Your task to perform on an android device: What time is it in Sydney? Image 0: 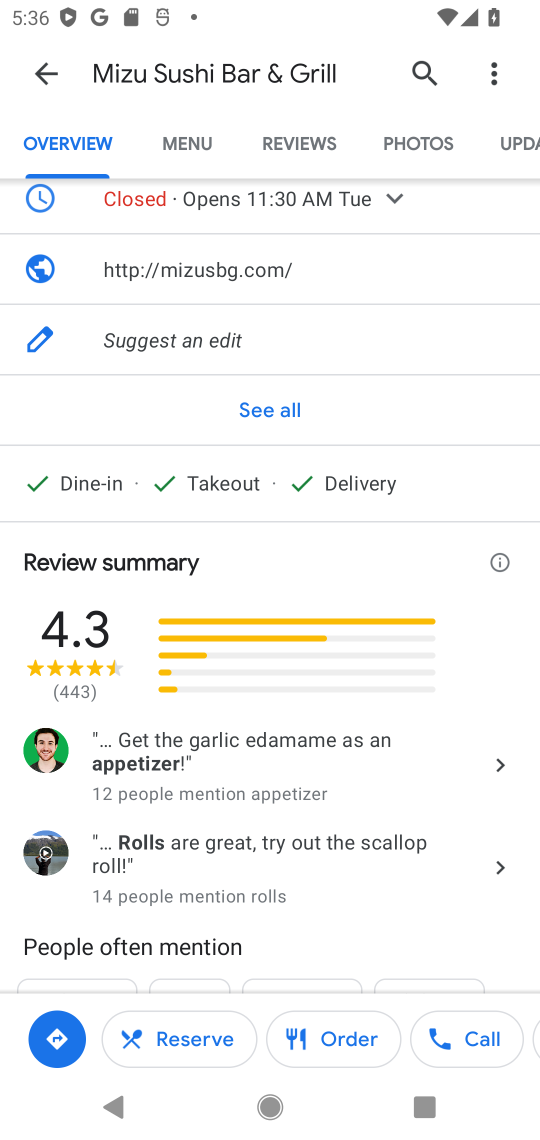
Step 0: type " time is it in Sydney?"
Your task to perform on an android device: What time is it in Sydney? Image 1: 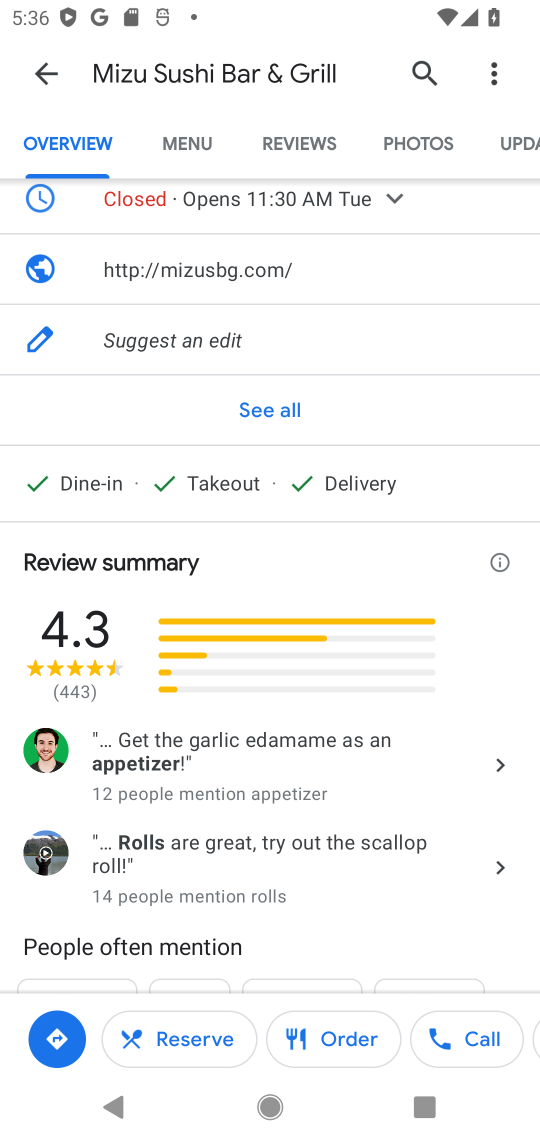
Step 1: click (50, 75)
Your task to perform on an android device: What time is it in Sydney? Image 2: 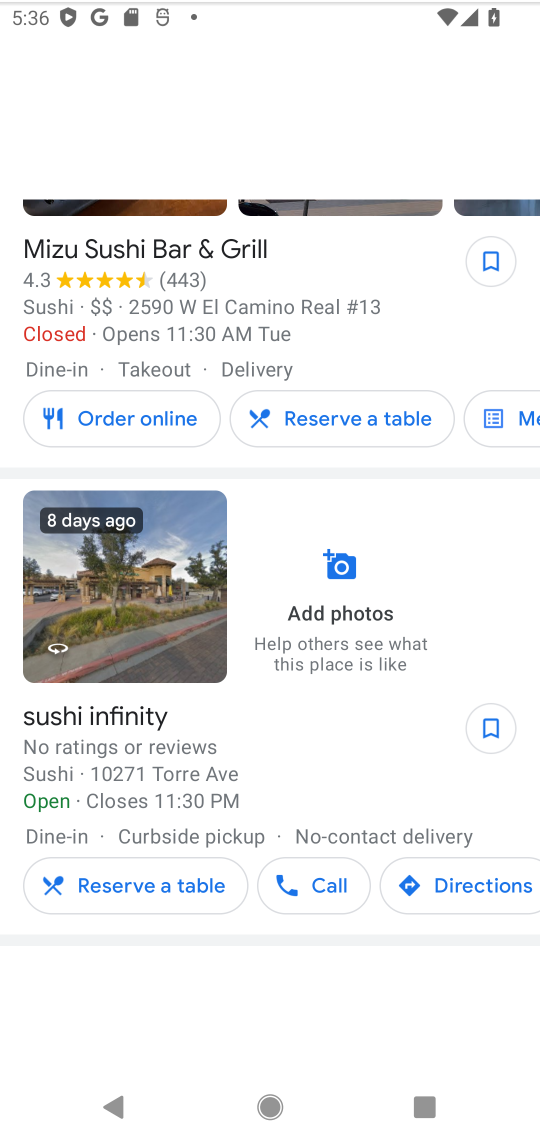
Step 2: press back button
Your task to perform on an android device: What time is it in Sydney? Image 3: 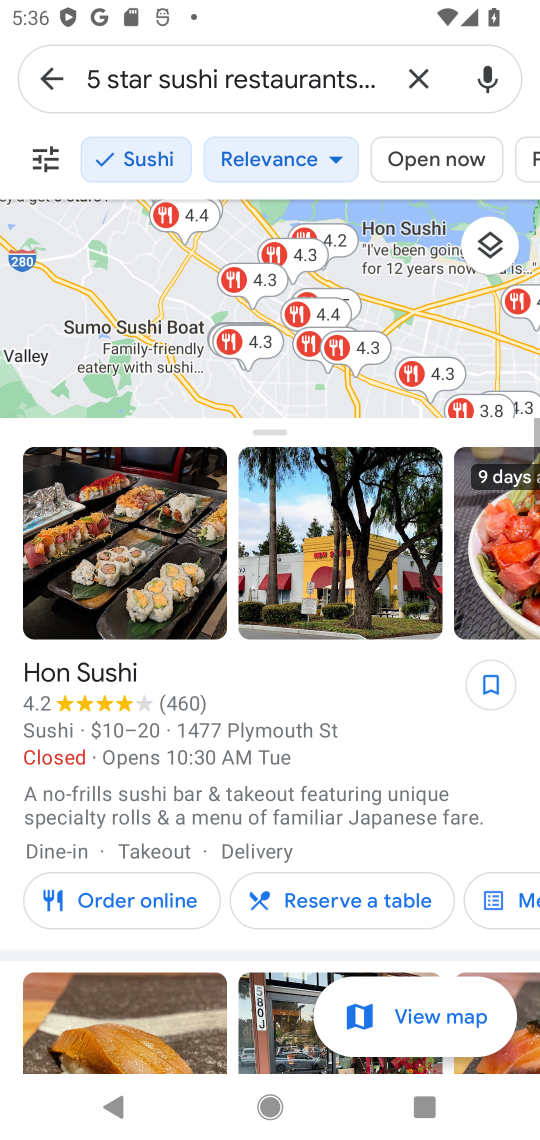
Step 3: press back button
Your task to perform on an android device: What time is it in Sydney? Image 4: 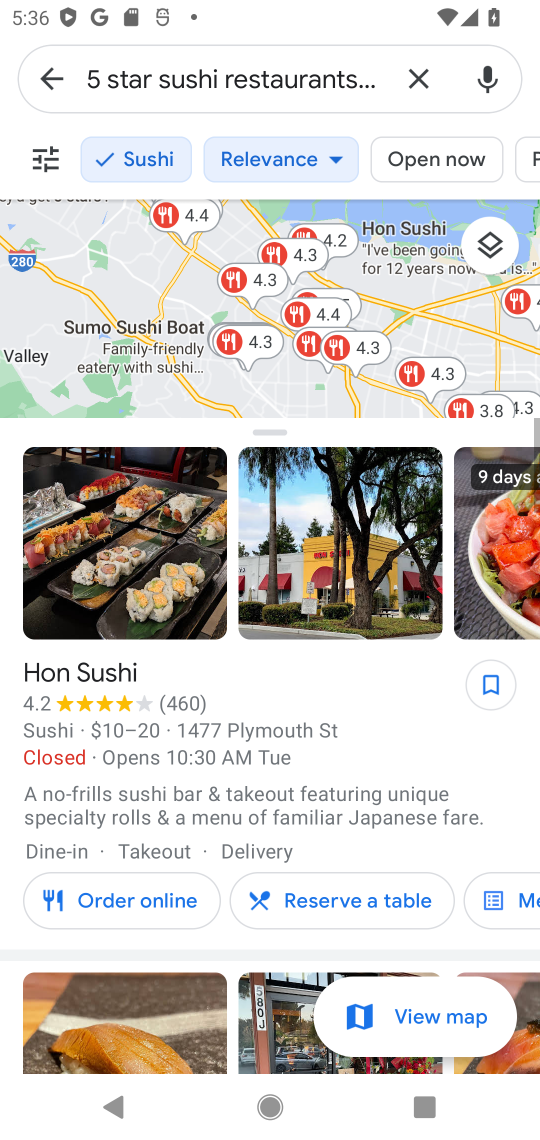
Step 4: press back button
Your task to perform on an android device: What time is it in Sydney? Image 5: 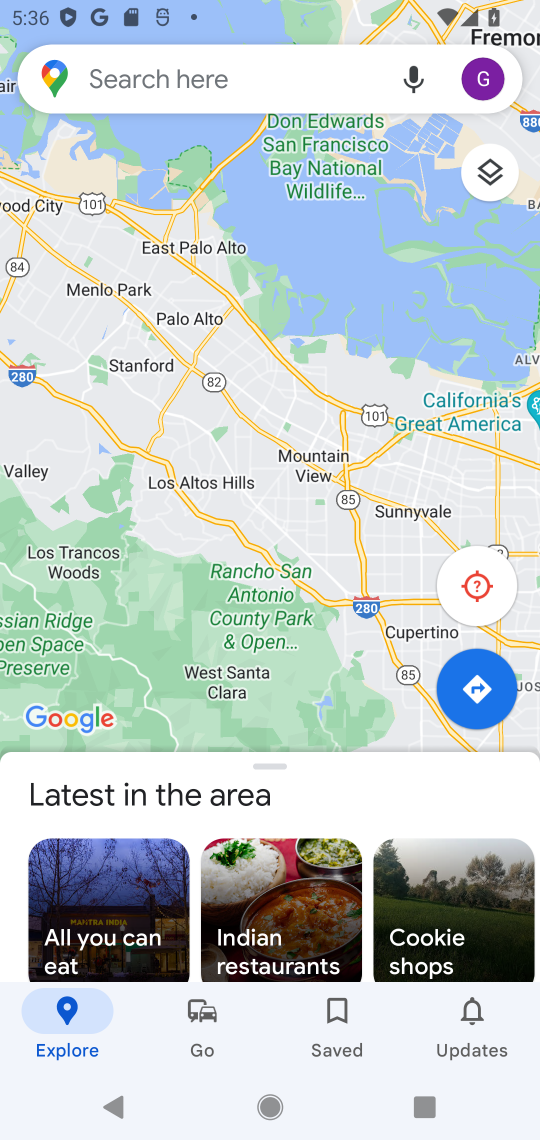
Step 5: press back button
Your task to perform on an android device: What time is it in Sydney? Image 6: 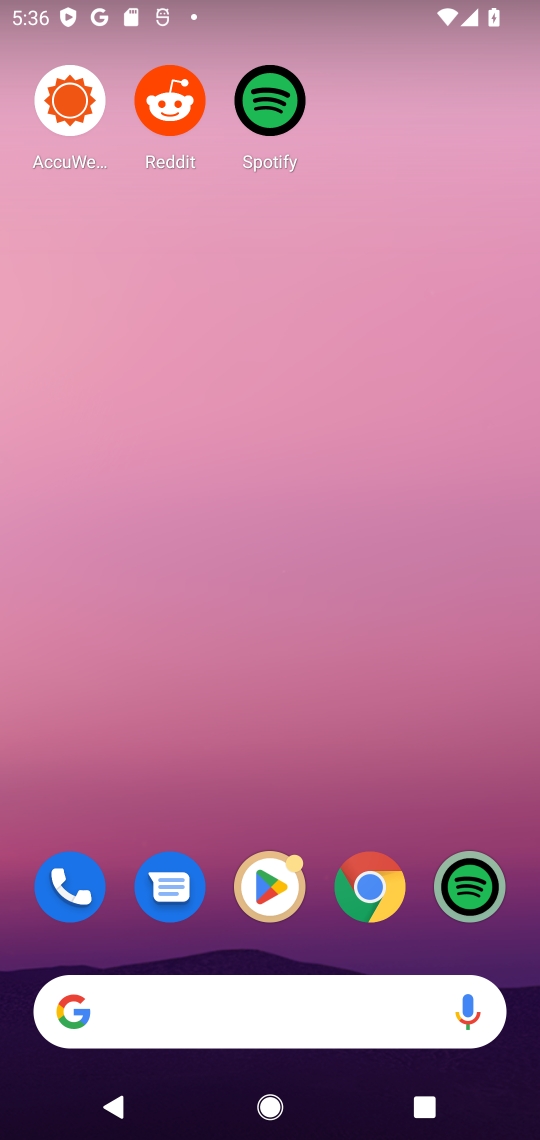
Step 6: press back button
Your task to perform on an android device: What time is it in Sydney? Image 7: 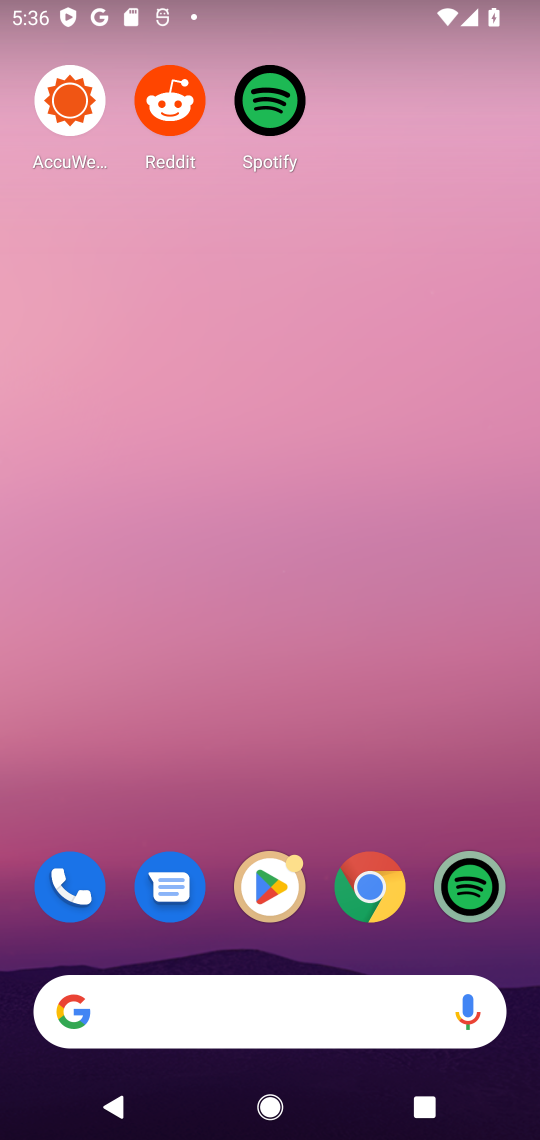
Step 7: press back button
Your task to perform on an android device: What time is it in Sydney? Image 8: 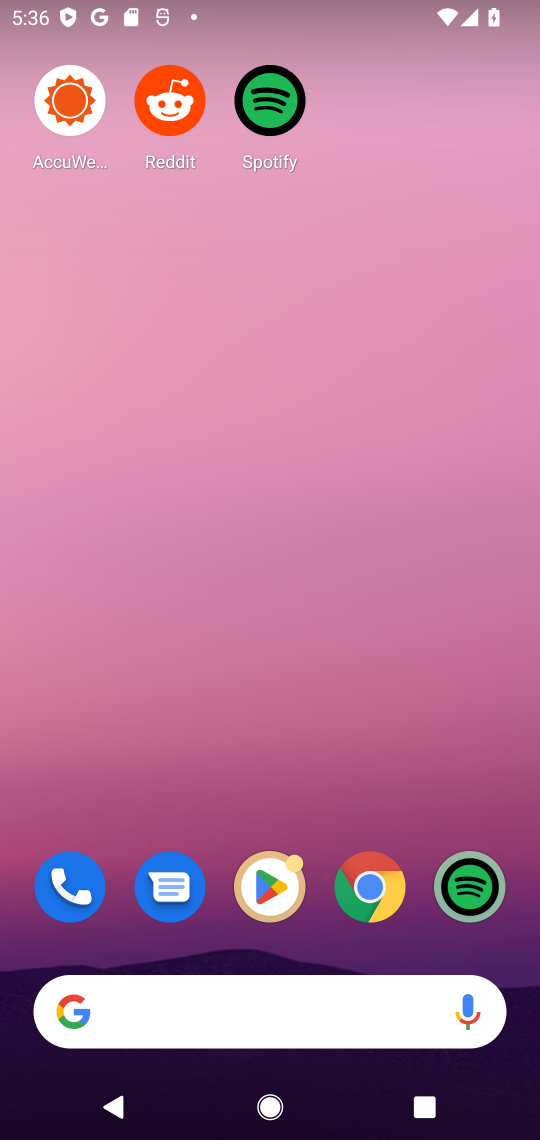
Step 8: click (215, 1009)
Your task to perform on an android device: What time is it in Sydney? Image 9: 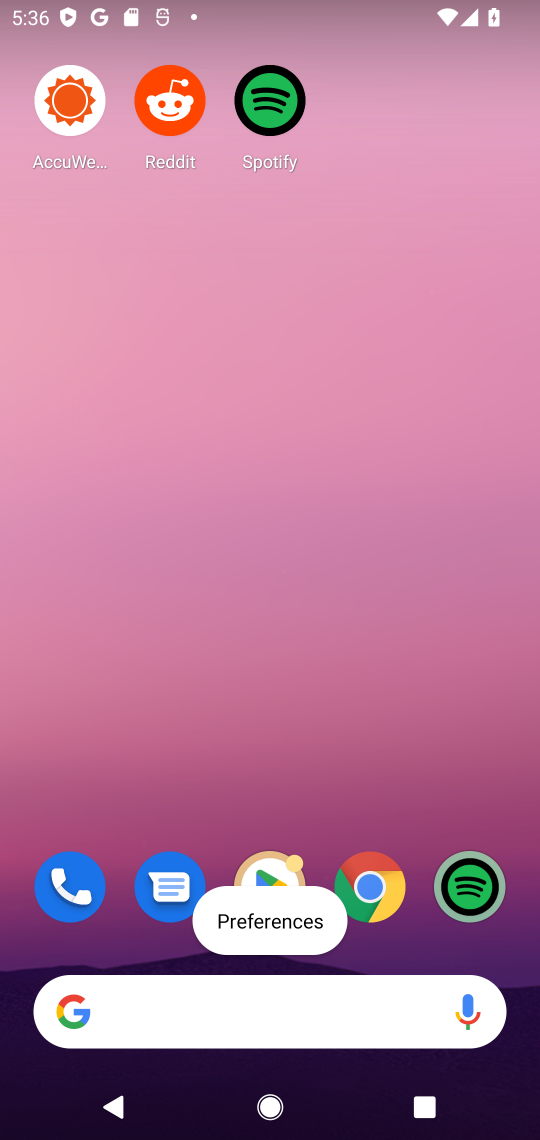
Step 9: click (117, 1033)
Your task to perform on an android device: What time is it in Sydney? Image 10: 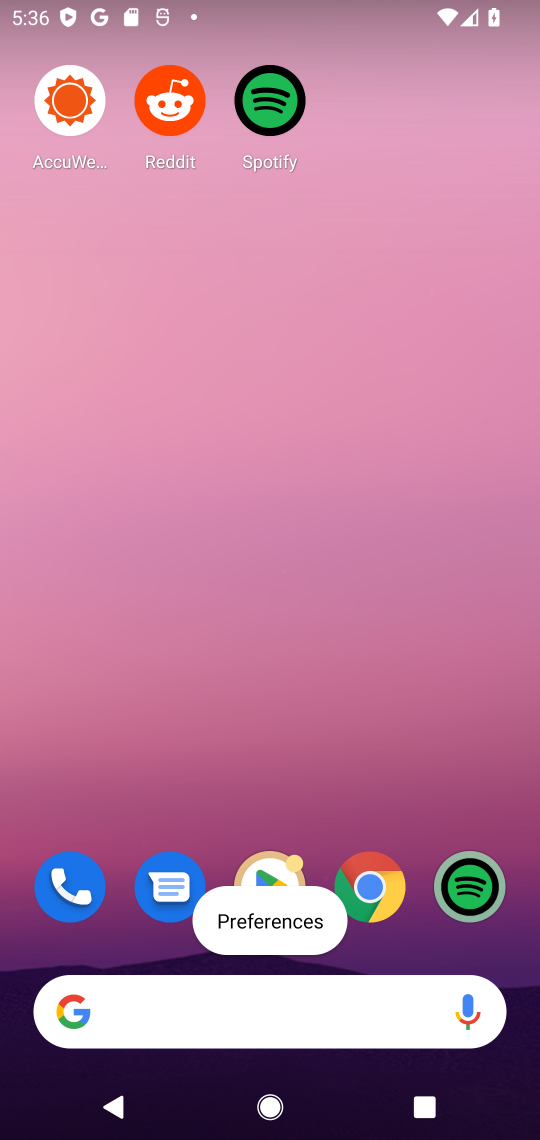
Step 10: click (212, 1043)
Your task to perform on an android device: What time is it in Sydney? Image 11: 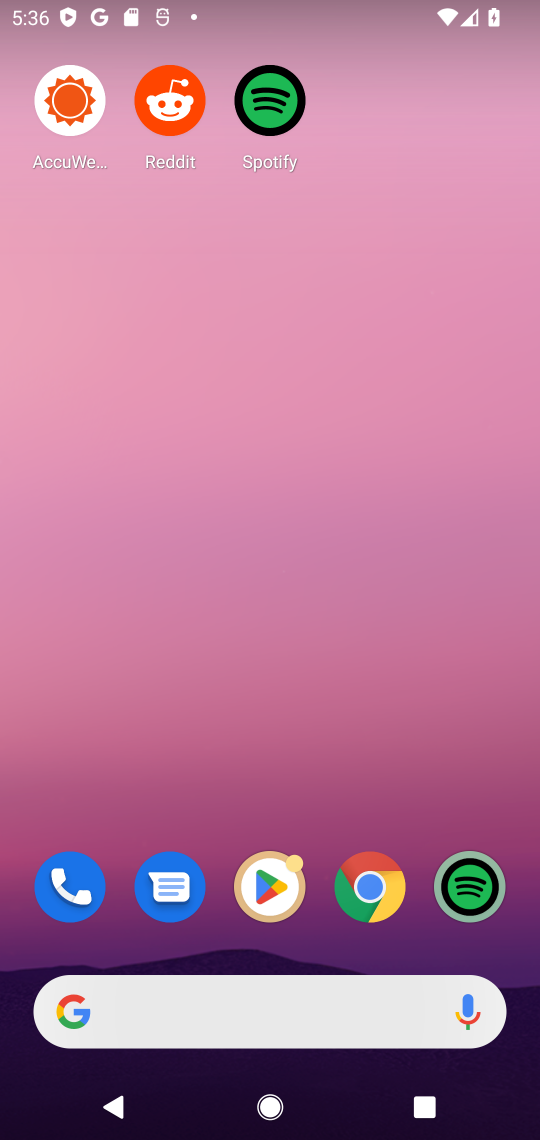
Step 11: click (217, 1018)
Your task to perform on an android device: What time is it in Sydney? Image 12: 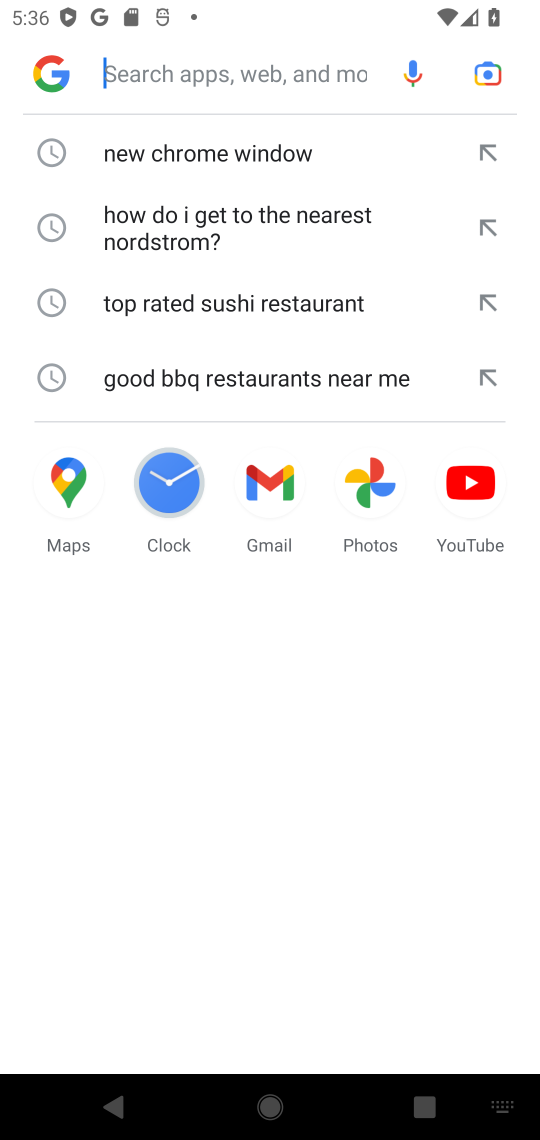
Step 12: type " time is it in Sydney?"
Your task to perform on an android device: What time is it in Sydney? Image 13: 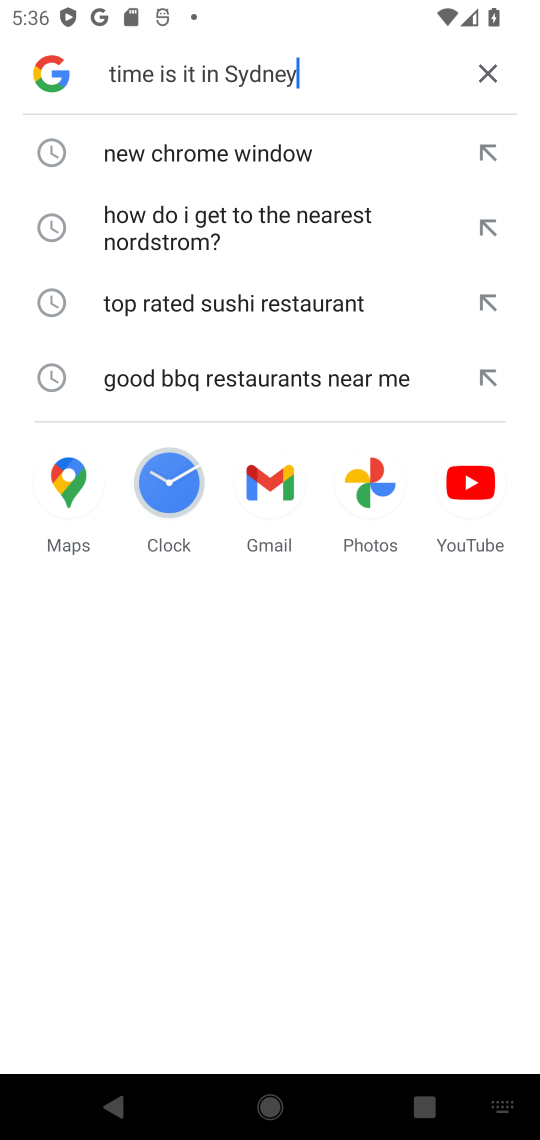
Step 13: type ""
Your task to perform on an android device: What time is it in Sydney? Image 14: 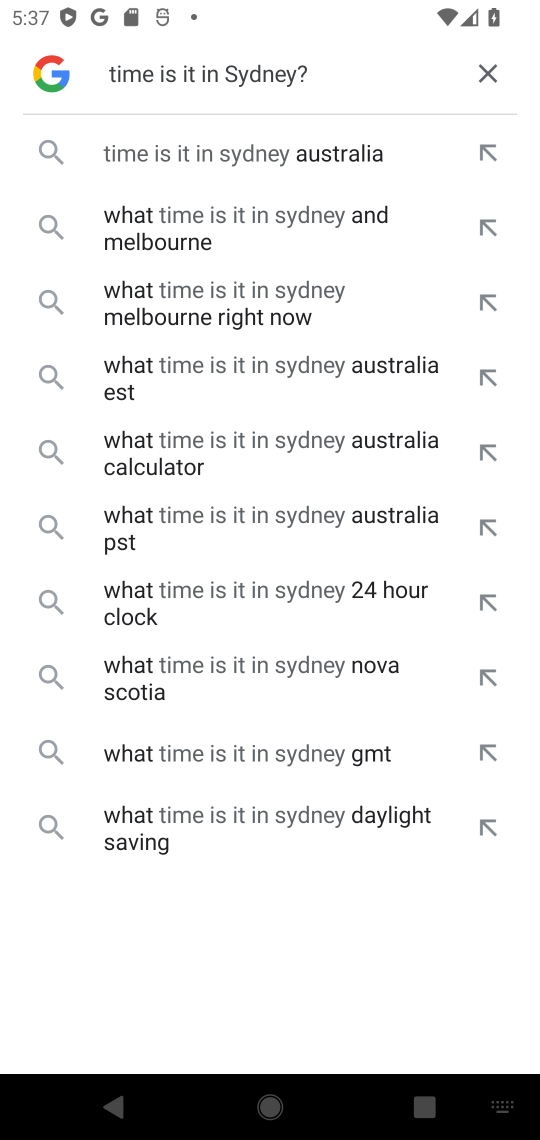
Step 14: click (264, 167)
Your task to perform on an android device: What time is it in Sydney? Image 15: 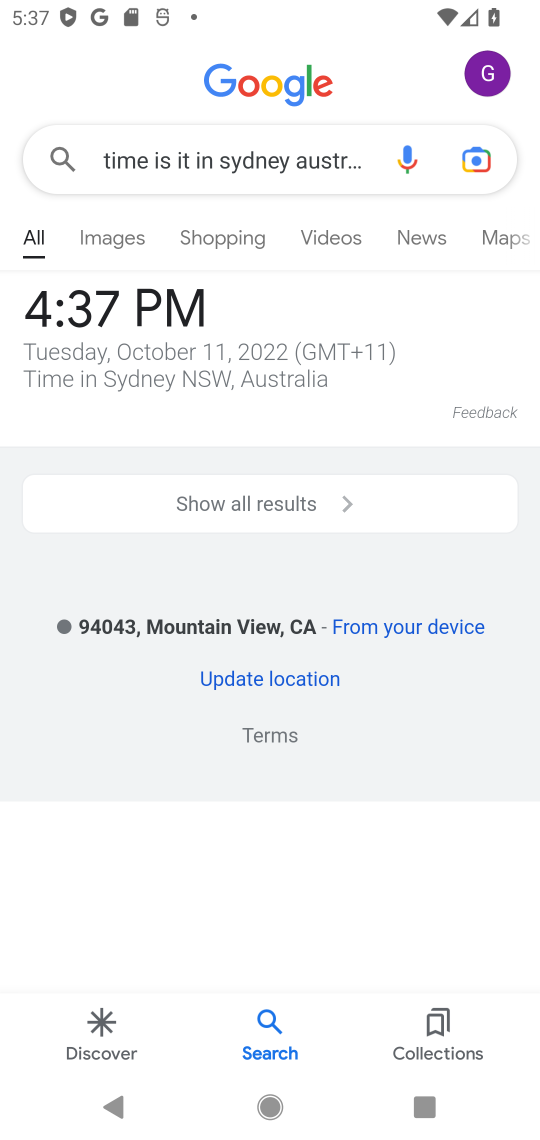
Step 15: drag from (285, 876) to (271, 790)
Your task to perform on an android device: What time is it in Sydney? Image 16: 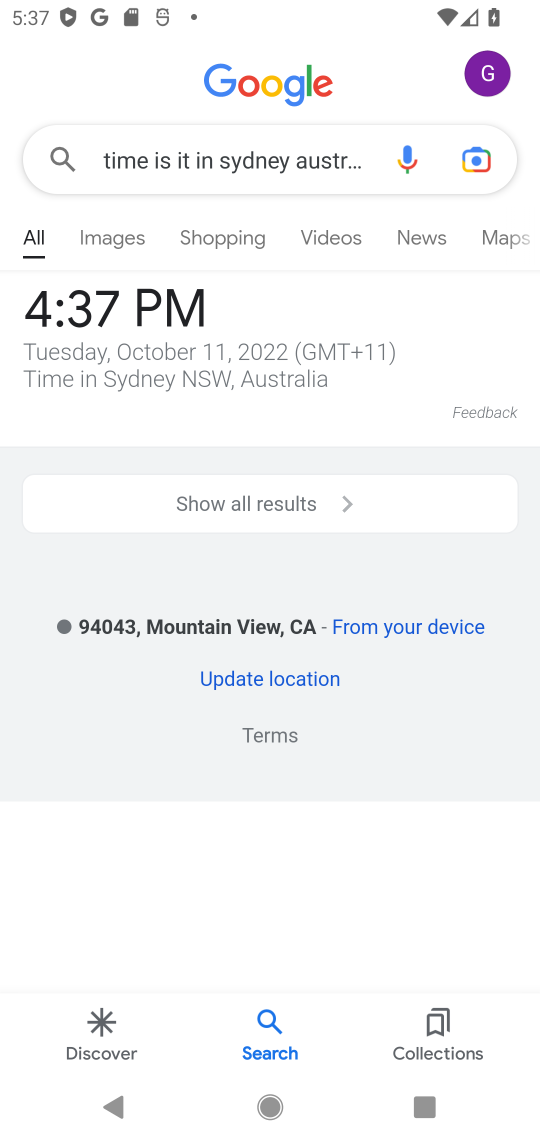
Step 16: click (300, 506)
Your task to perform on an android device: What time is it in Sydney? Image 17: 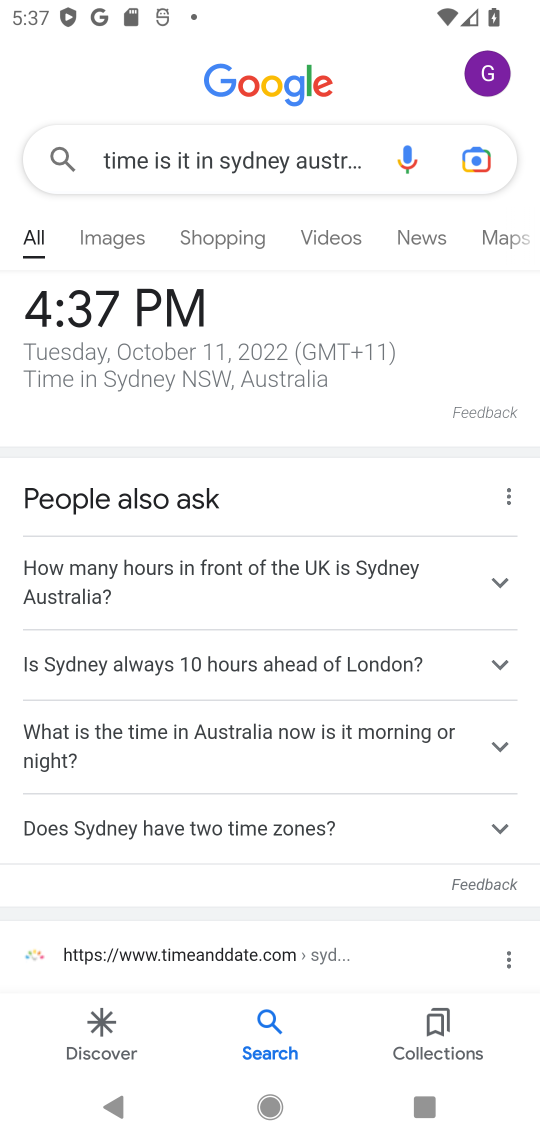
Step 17: drag from (325, 829) to (287, 371)
Your task to perform on an android device: What time is it in Sydney? Image 18: 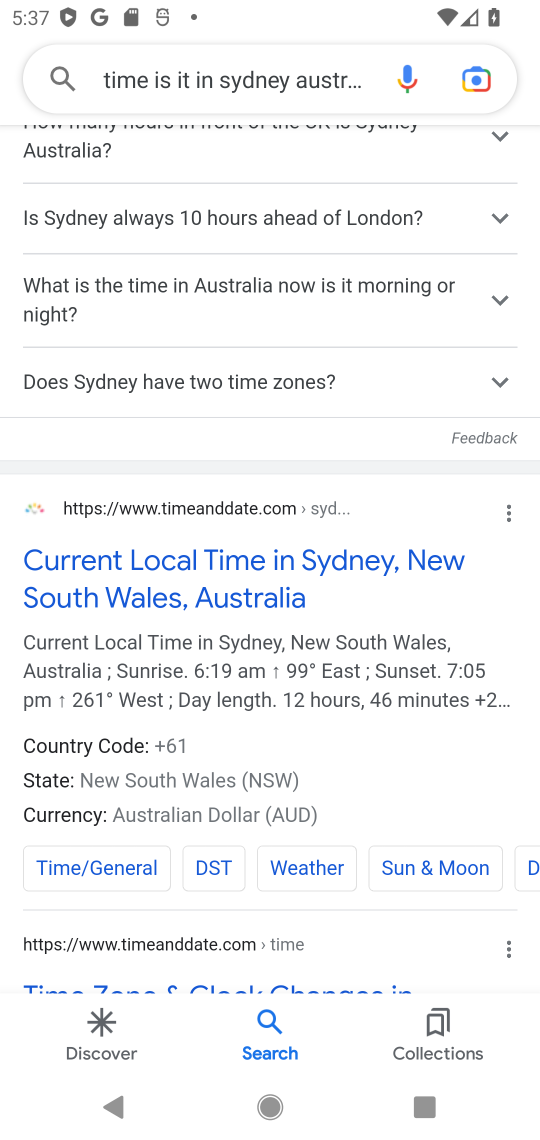
Step 18: drag from (387, 741) to (387, 518)
Your task to perform on an android device: What time is it in Sydney? Image 19: 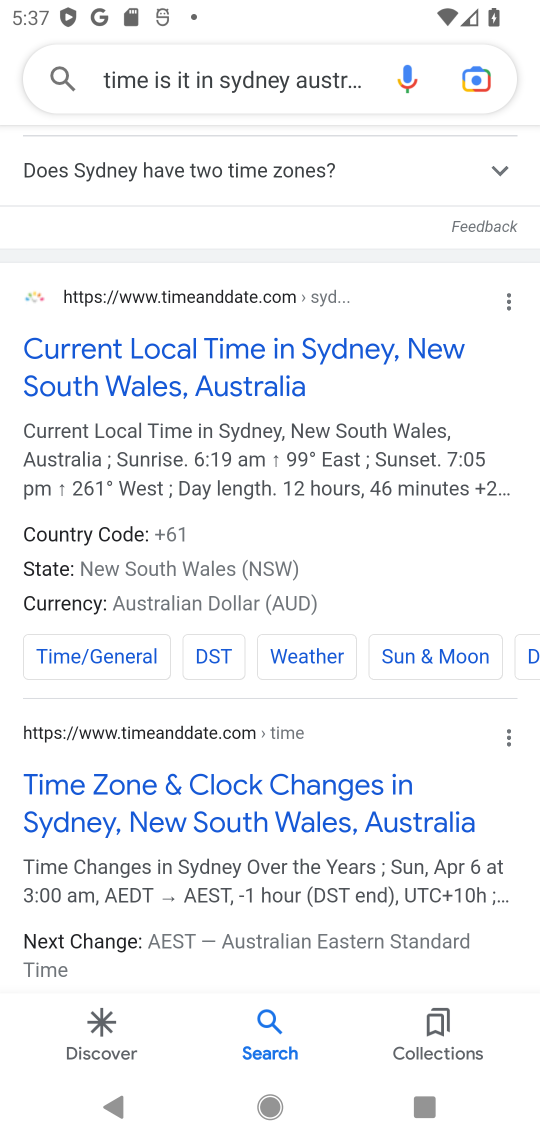
Step 19: drag from (447, 785) to (369, 174)
Your task to perform on an android device: What time is it in Sydney? Image 20: 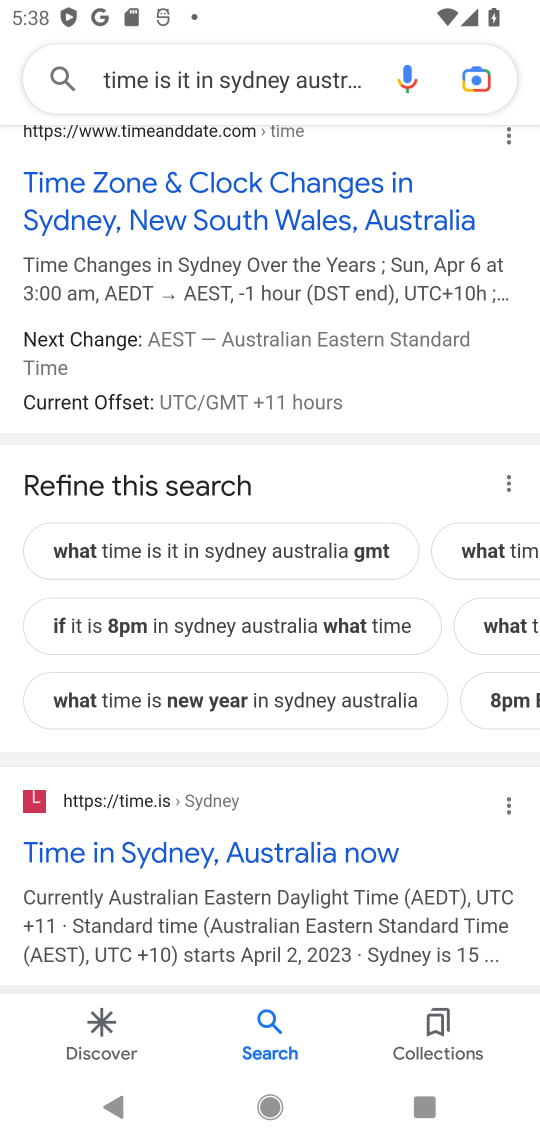
Step 20: drag from (424, 528) to (444, 256)
Your task to perform on an android device: What time is it in Sydney? Image 21: 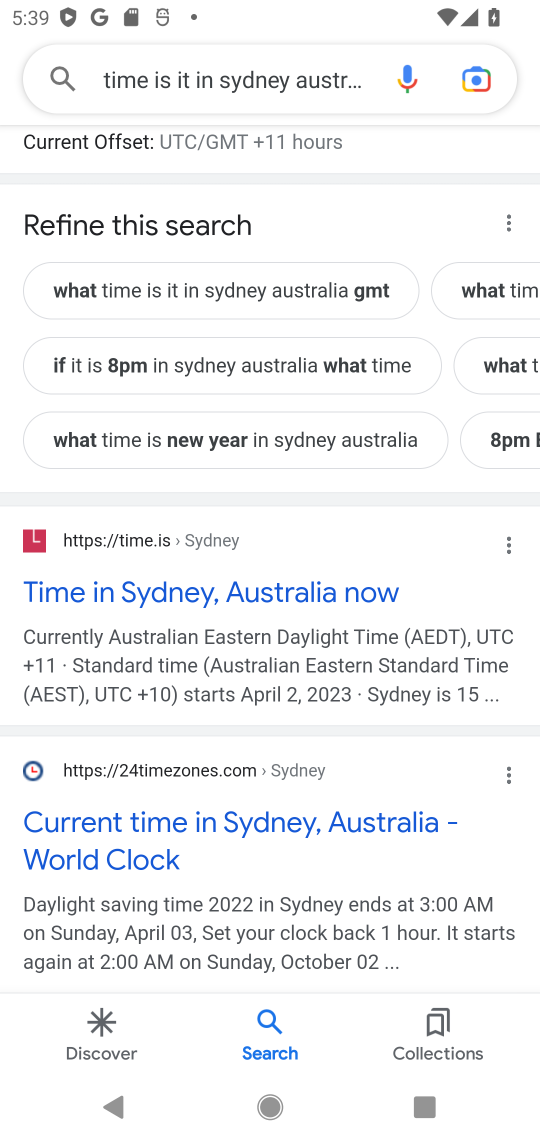
Step 21: click (455, 480)
Your task to perform on an android device: What time is it in Sydney? Image 22: 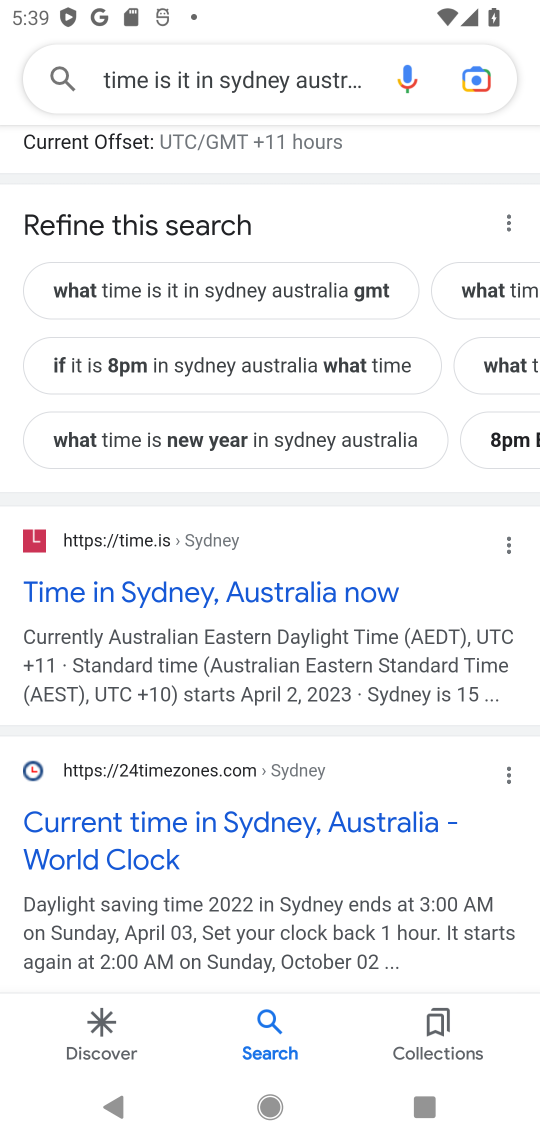
Step 22: task complete